Your task to perform on an android device: turn on the 12-hour format for clock Image 0: 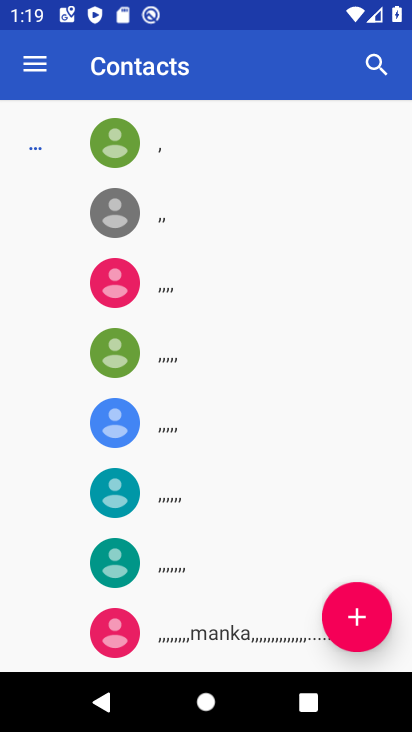
Step 0: press home button
Your task to perform on an android device: turn on the 12-hour format for clock Image 1: 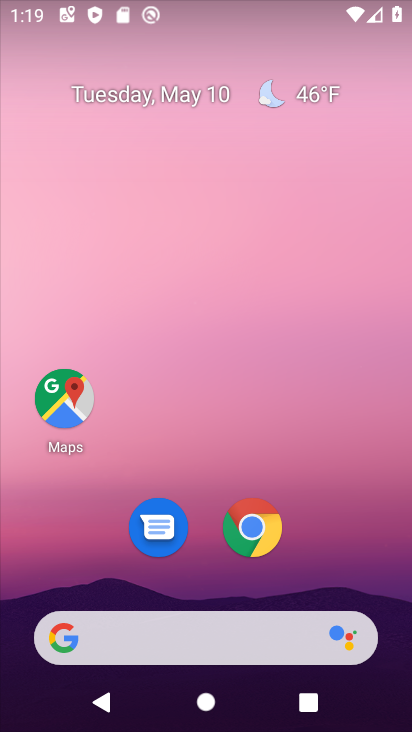
Step 1: drag from (344, 571) to (343, 29)
Your task to perform on an android device: turn on the 12-hour format for clock Image 2: 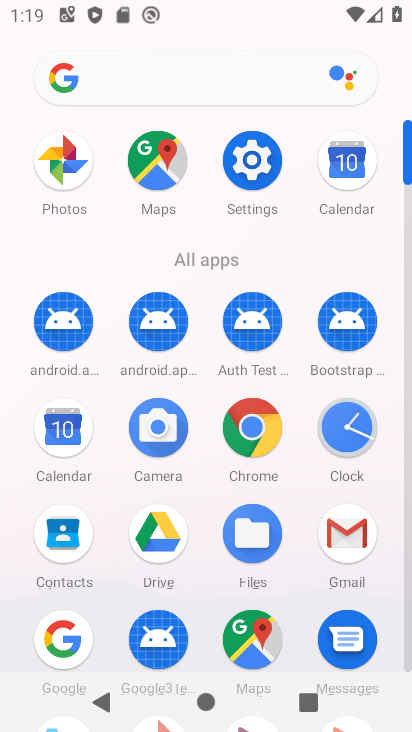
Step 2: click (346, 435)
Your task to perform on an android device: turn on the 12-hour format for clock Image 3: 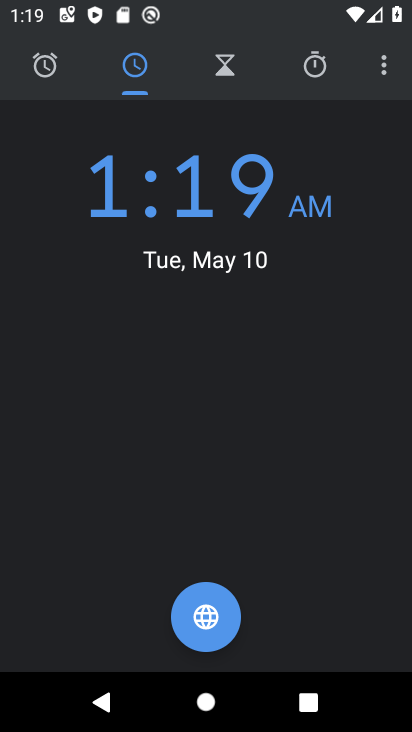
Step 3: click (383, 68)
Your task to perform on an android device: turn on the 12-hour format for clock Image 4: 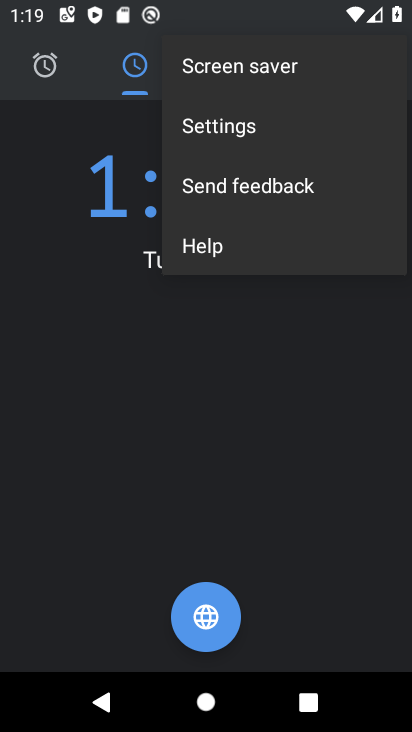
Step 4: click (213, 130)
Your task to perform on an android device: turn on the 12-hour format for clock Image 5: 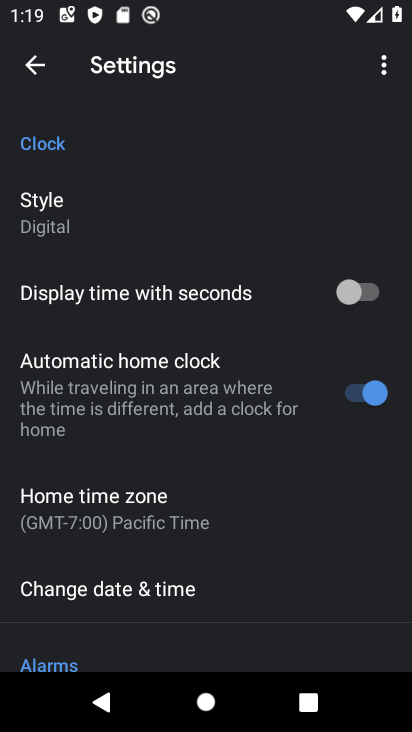
Step 5: click (144, 600)
Your task to perform on an android device: turn on the 12-hour format for clock Image 6: 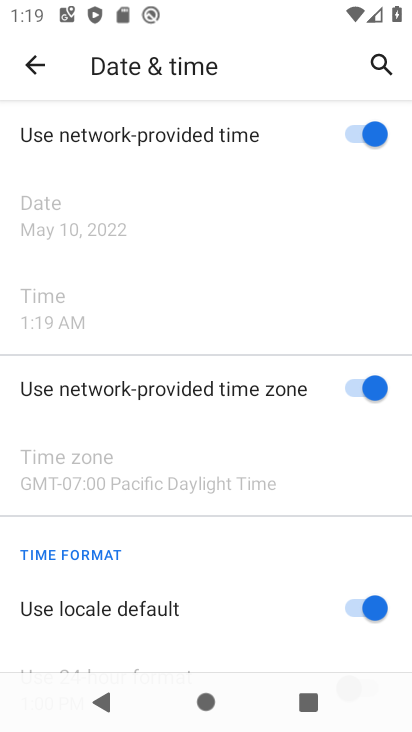
Step 6: task complete